Your task to perform on an android device: set an alarm Image 0: 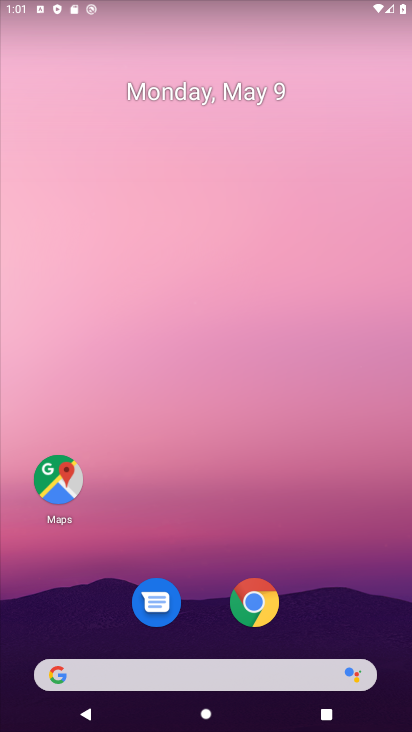
Step 0: drag from (274, 307) to (257, 20)
Your task to perform on an android device: set an alarm Image 1: 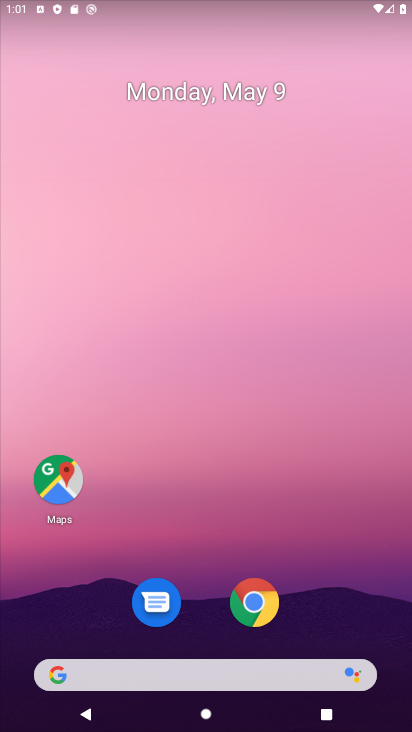
Step 1: drag from (308, 573) to (276, 120)
Your task to perform on an android device: set an alarm Image 2: 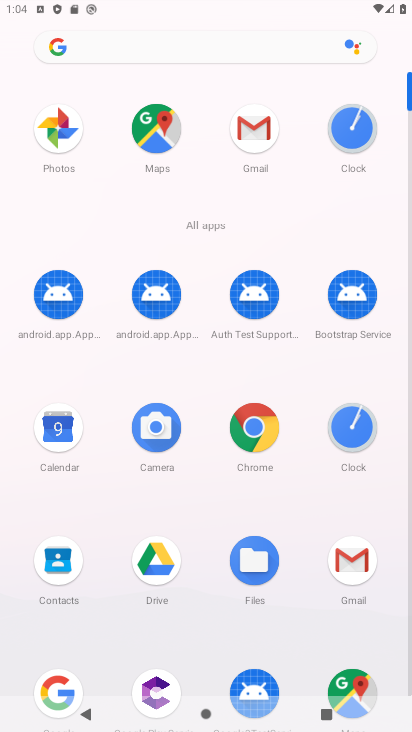
Step 2: click (347, 150)
Your task to perform on an android device: set an alarm Image 3: 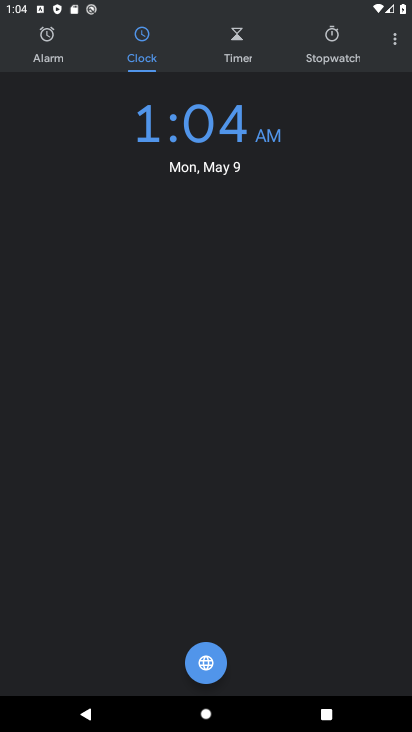
Step 3: click (62, 68)
Your task to perform on an android device: set an alarm Image 4: 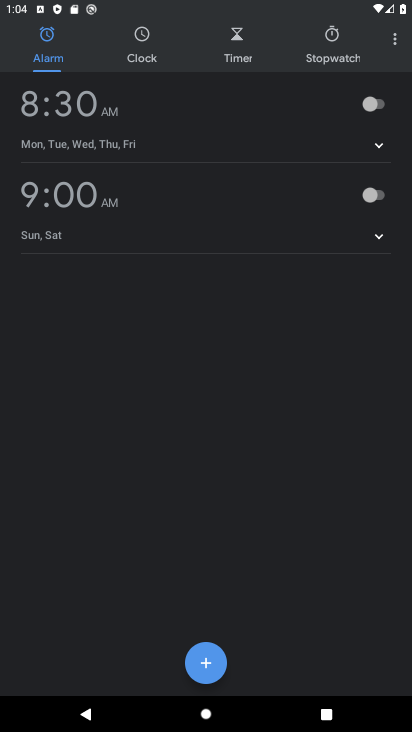
Step 4: click (380, 108)
Your task to perform on an android device: set an alarm Image 5: 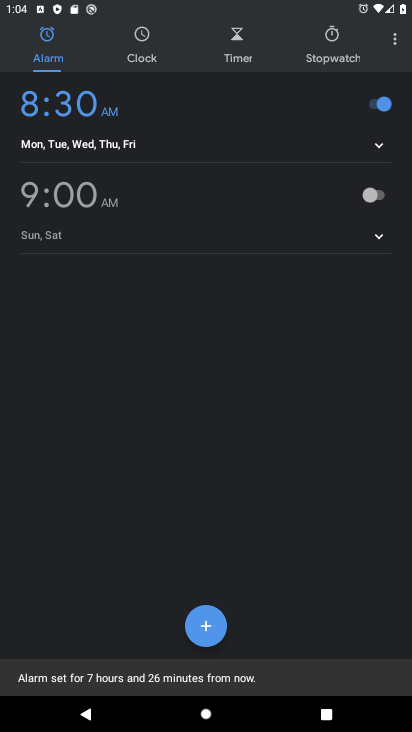
Step 5: task complete